Your task to perform on an android device: Open a new Chrome window Image 0: 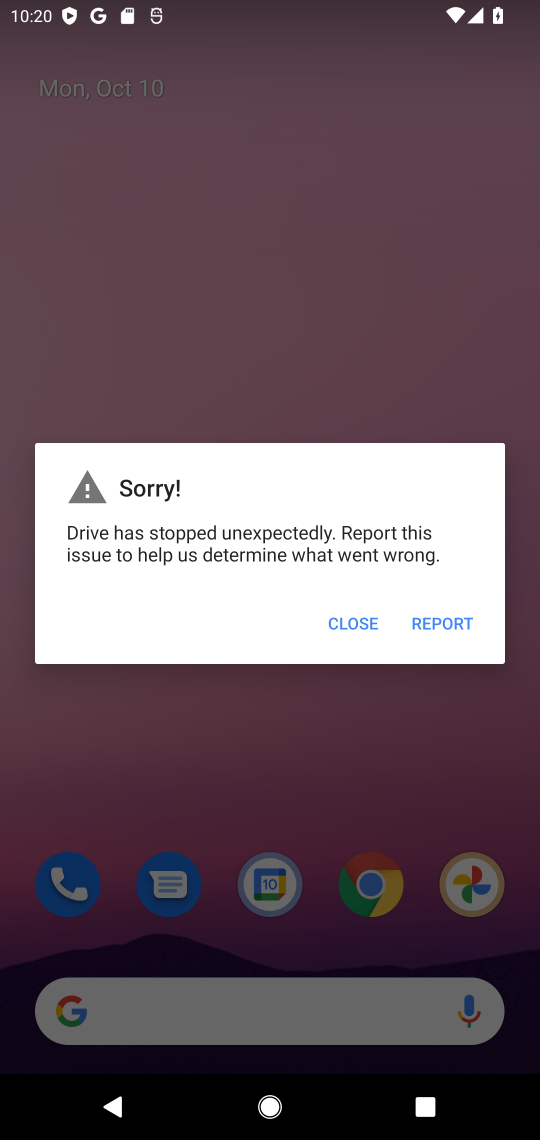
Step 0: click (383, 621)
Your task to perform on an android device: Open a new Chrome window Image 1: 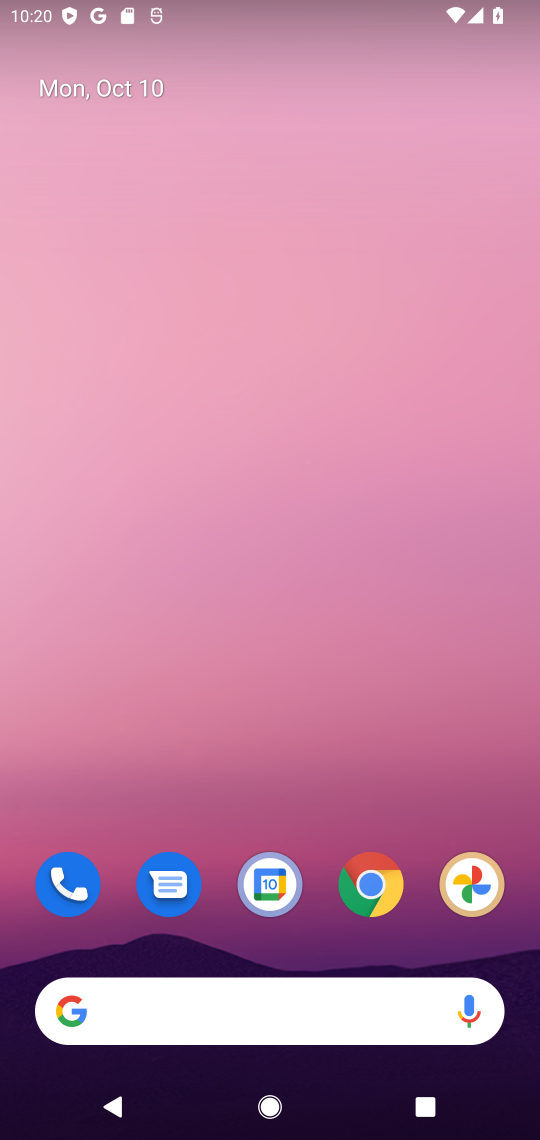
Step 1: click (373, 883)
Your task to perform on an android device: Open a new Chrome window Image 2: 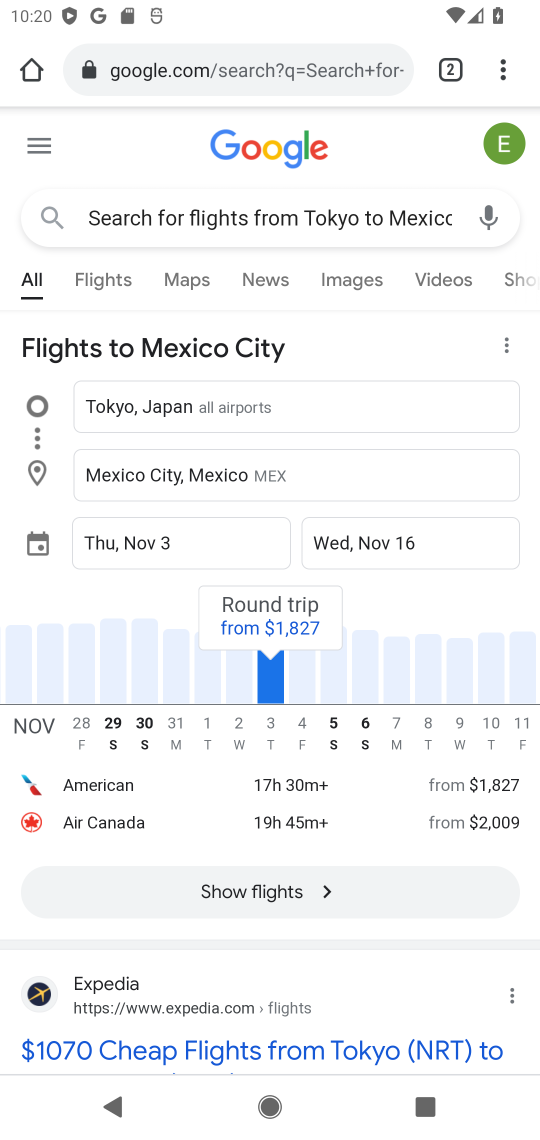
Step 2: click (340, 213)
Your task to perform on an android device: Open a new Chrome window Image 3: 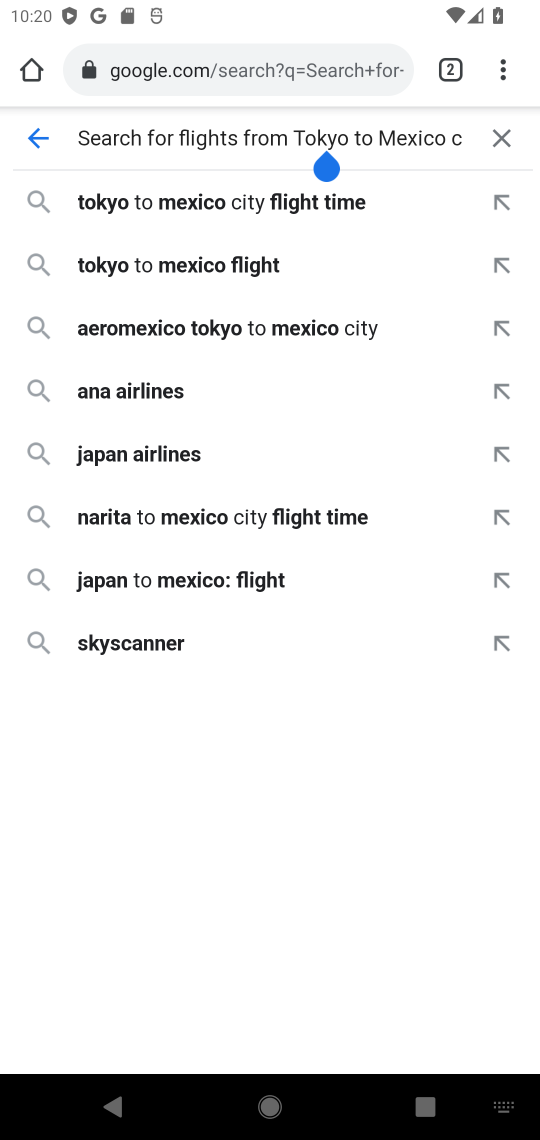
Step 3: task complete